Your task to perform on an android device: Search for pizza restaurants on Maps Image 0: 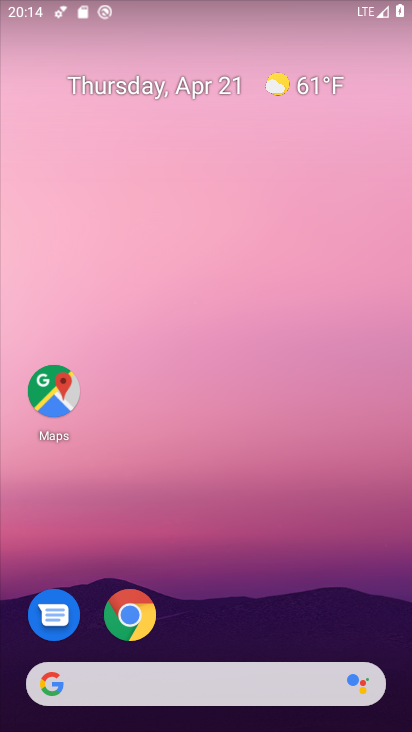
Step 0: drag from (229, 644) to (218, 322)
Your task to perform on an android device: Search for pizza restaurants on Maps Image 1: 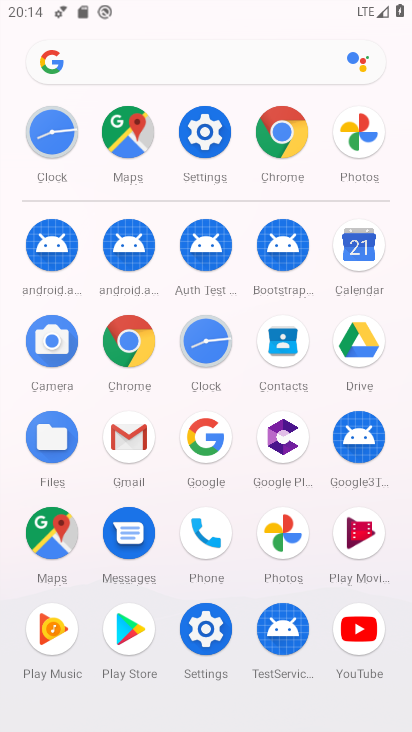
Step 1: click (58, 524)
Your task to perform on an android device: Search for pizza restaurants on Maps Image 2: 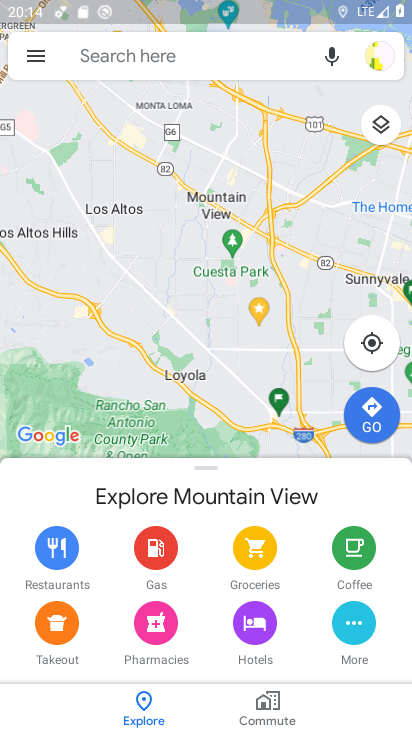
Step 2: drag from (225, 485) to (258, 112)
Your task to perform on an android device: Search for pizza restaurants on Maps Image 3: 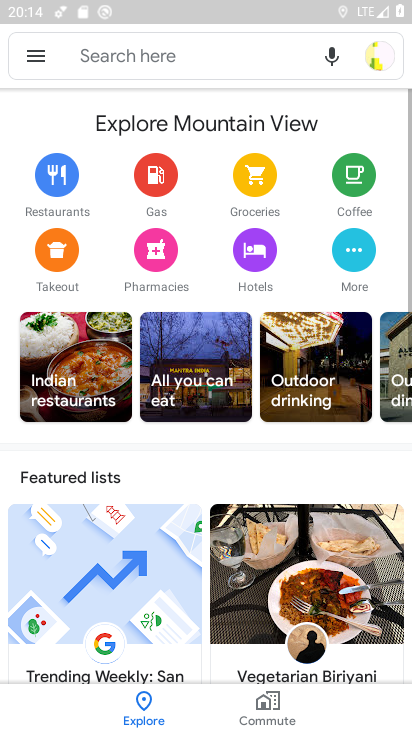
Step 3: click (178, 49)
Your task to perform on an android device: Search for pizza restaurants on Maps Image 4: 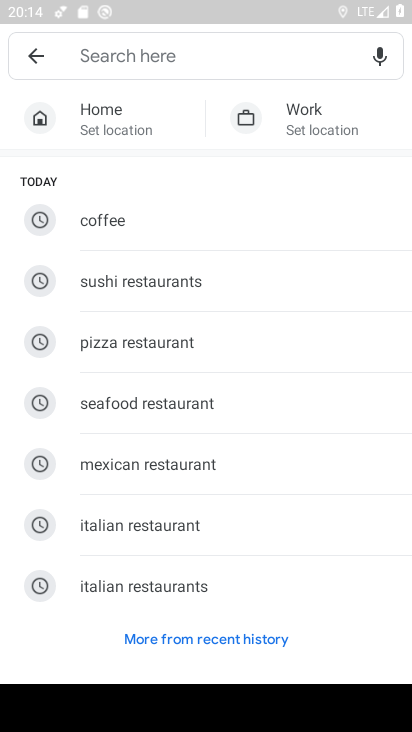
Step 4: click (192, 337)
Your task to perform on an android device: Search for pizza restaurants on Maps Image 5: 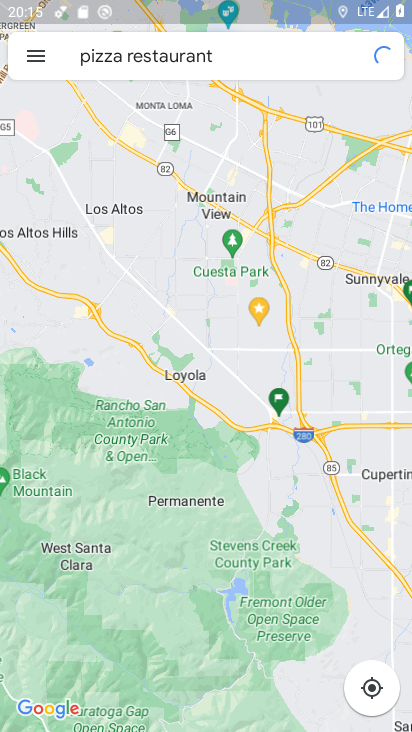
Step 5: task complete